Your task to perform on an android device: turn on data saver in the chrome app Image 0: 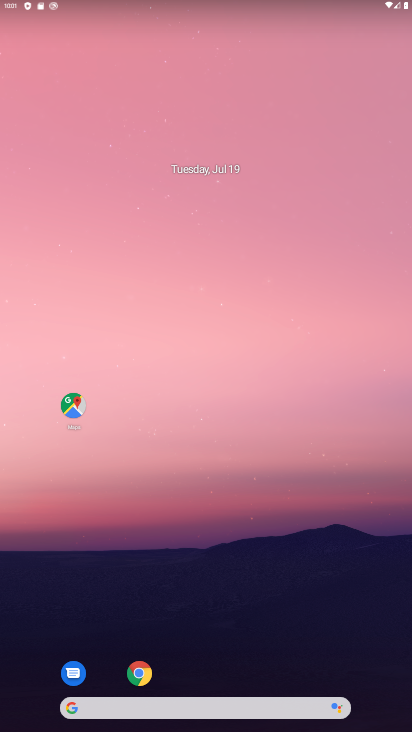
Step 0: drag from (322, 643) to (336, 95)
Your task to perform on an android device: turn on data saver in the chrome app Image 1: 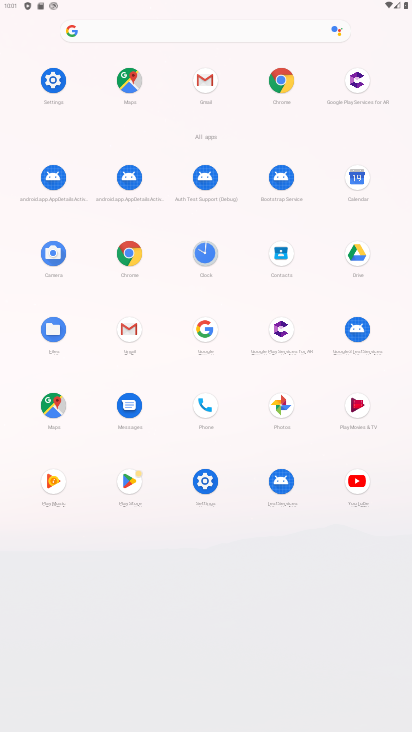
Step 1: click (285, 85)
Your task to perform on an android device: turn on data saver in the chrome app Image 2: 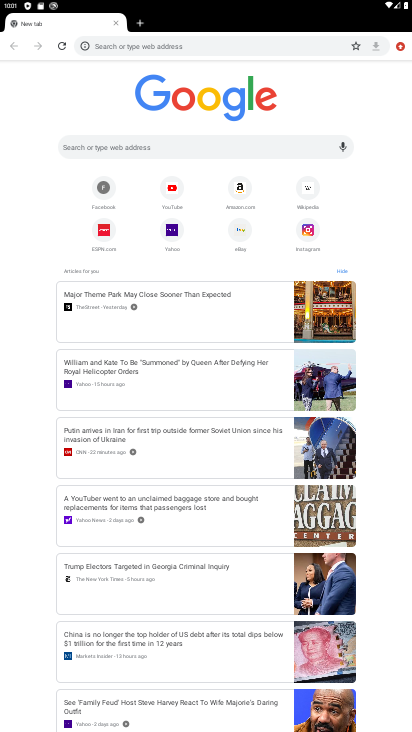
Step 2: click (397, 45)
Your task to perform on an android device: turn on data saver in the chrome app Image 3: 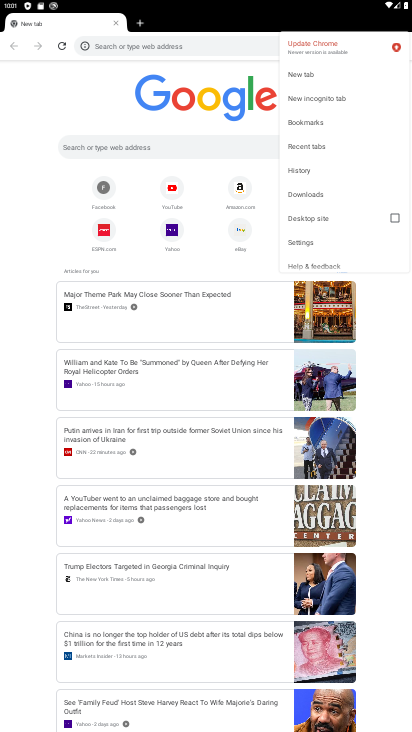
Step 3: click (317, 238)
Your task to perform on an android device: turn on data saver in the chrome app Image 4: 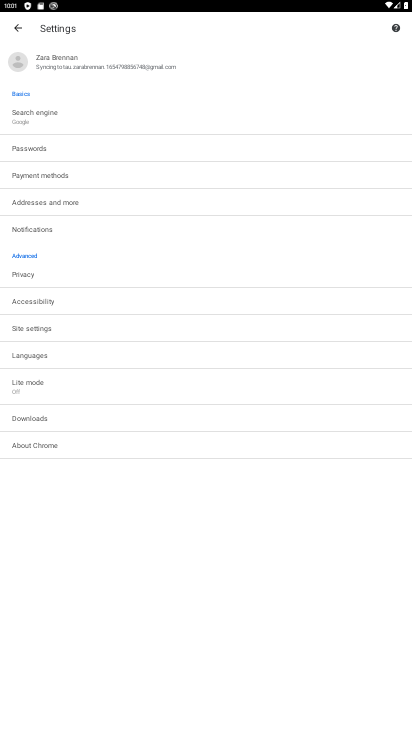
Step 4: click (186, 385)
Your task to perform on an android device: turn on data saver in the chrome app Image 5: 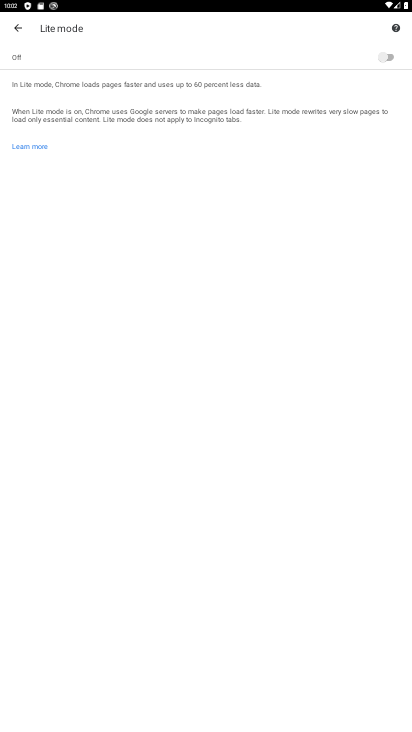
Step 5: click (382, 61)
Your task to perform on an android device: turn on data saver in the chrome app Image 6: 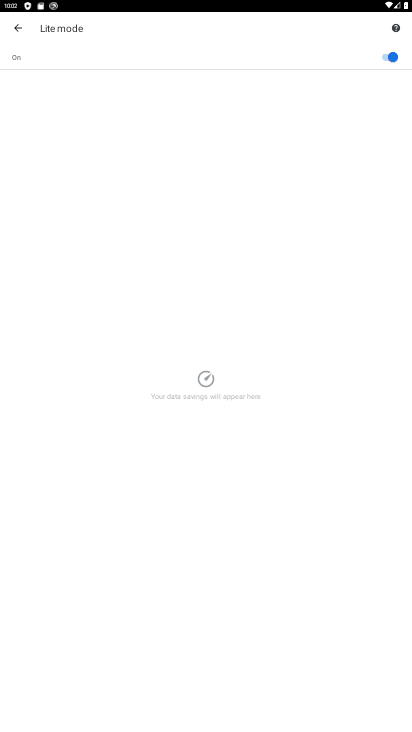
Step 6: task complete